Your task to perform on an android device: Open internet settings Image 0: 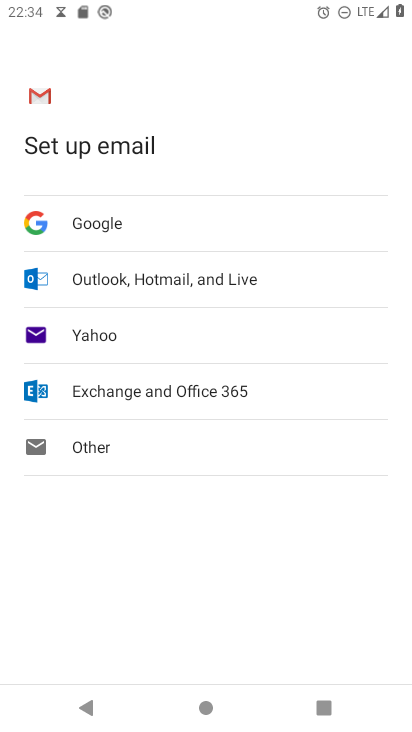
Step 0: press home button
Your task to perform on an android device: Open internet settings Image 1: 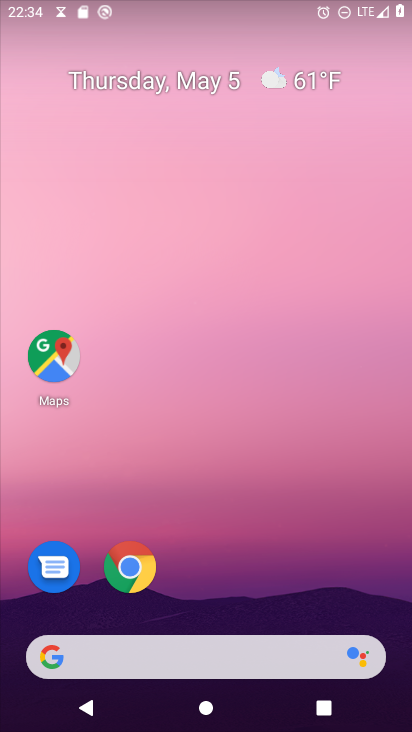
Step 1: drag from (235, 728) to (222, 190)
Your task to perform on an android device: Open internet settings Image 2: 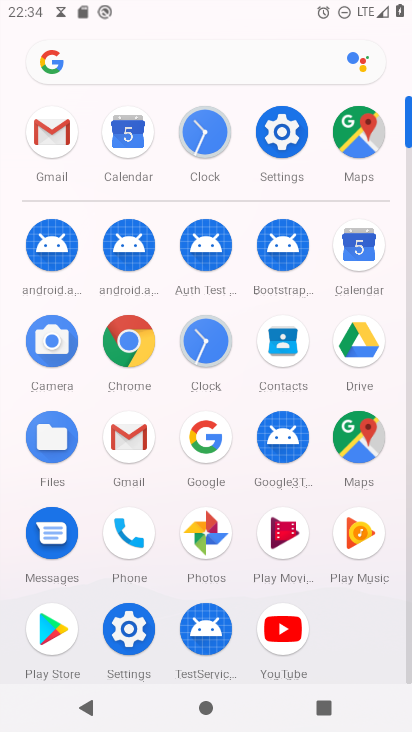
Step 2: click (294, 126)
Your task to perform on an android device: Open internet settings Image 3: 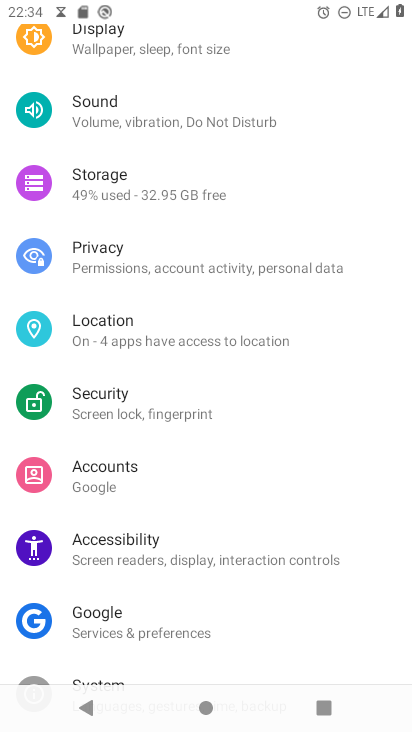
Step 3: drag from (196, 94) to (202, 391)
Your task to perform on an android device: Open internet settings Image 4: 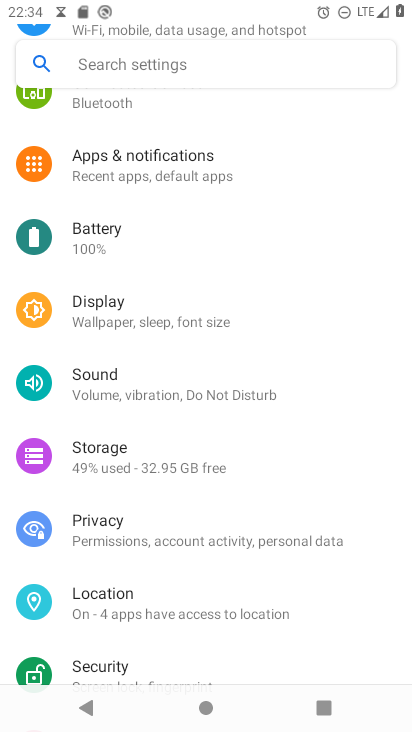
Step 4: drag from (206, 104) to (192, 416)
Your task to perform on an android device: Open internet settings Image 5: 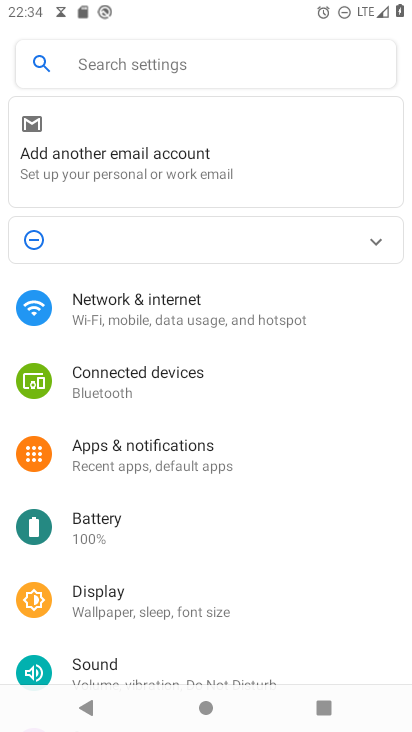
Step 5: click (123, 317)
Your task to perform on an android device: Open internet settings Image 6: 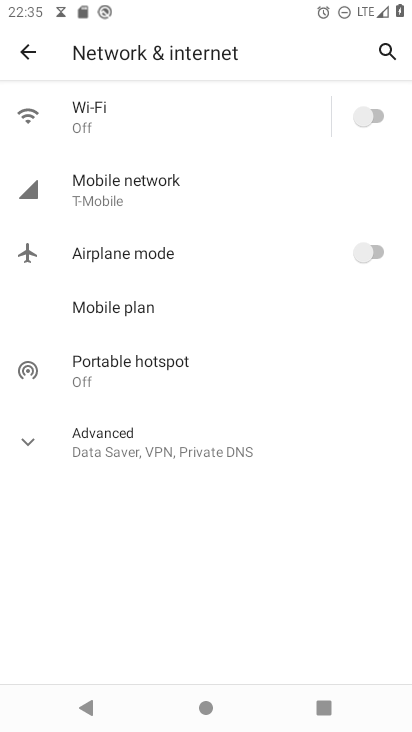
Step 6: task complete